Your task to perform on an android device: Open Google Maps Image 0: 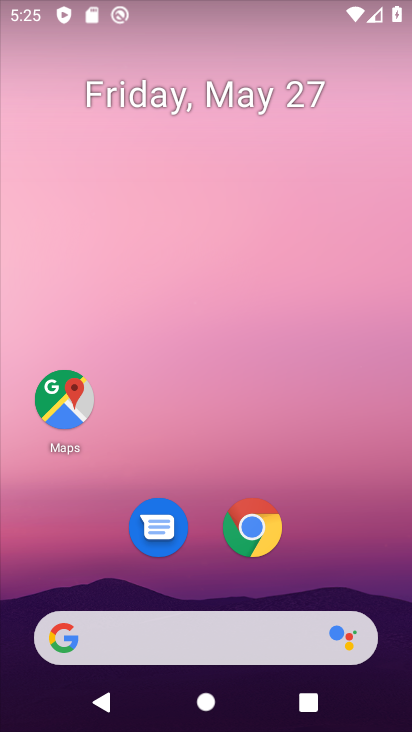
Step 0: click (74, 402)
Your task to perform on an android device: Open Google Maps Image 1: 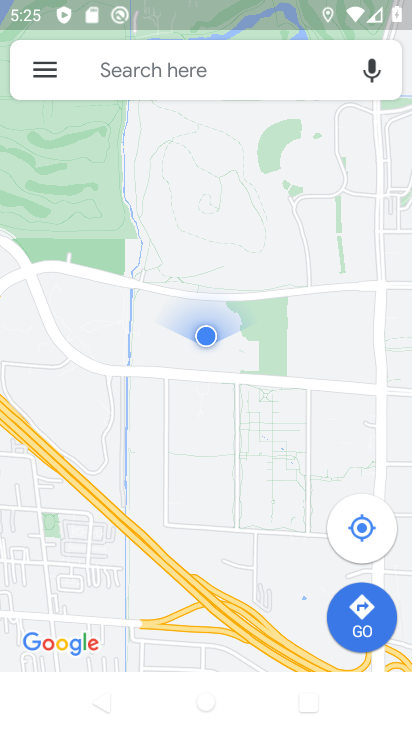
Step 1: task complete